Your task to perform on an android device: find snoozed emails in the gmail app Image 0: 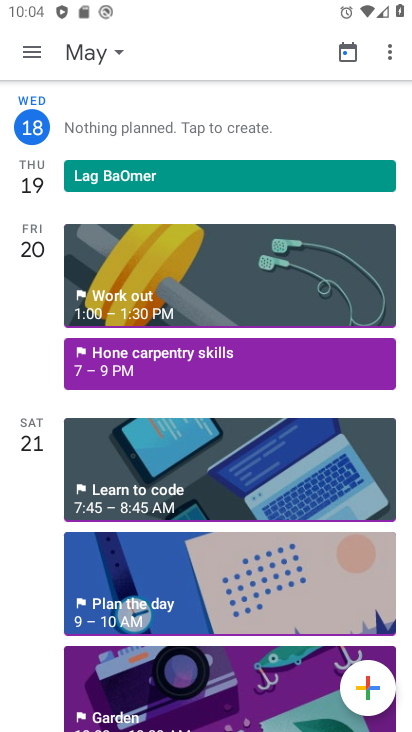
Step 0: press home button
Your task to perform on an android device: find snoozed emails in the gmail app Image 1: 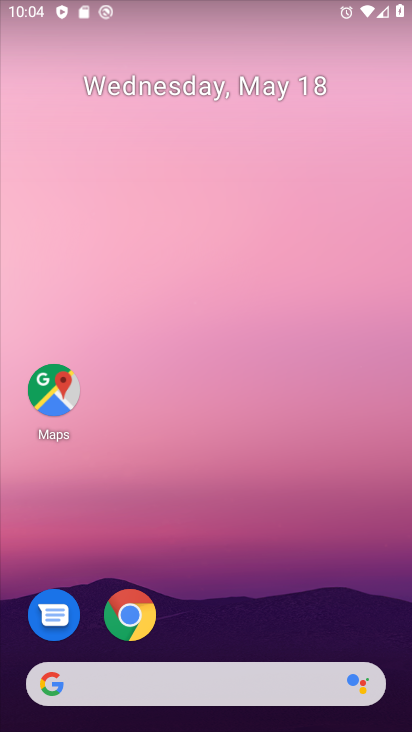
Step 1: drag from (178, 623) to (255, 295)
Your task to perform on an android device: find snoozed emails in the gmail app Image 2: 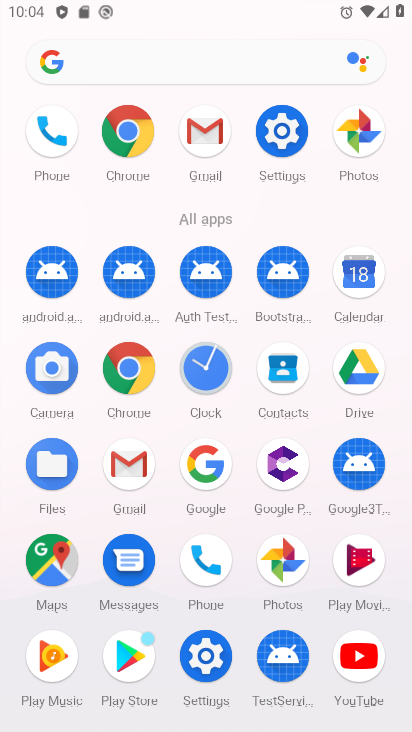
Step 2: click (201, 137)
Your task to perform on an android device: find snoozed emails in the gmail app Image 3: 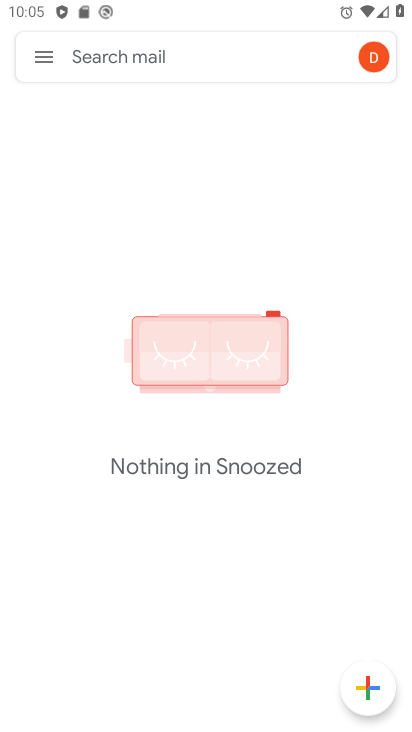
Step 3: task complete